Your task to perform on an android device: Find coffee shops on Maps Image 0: 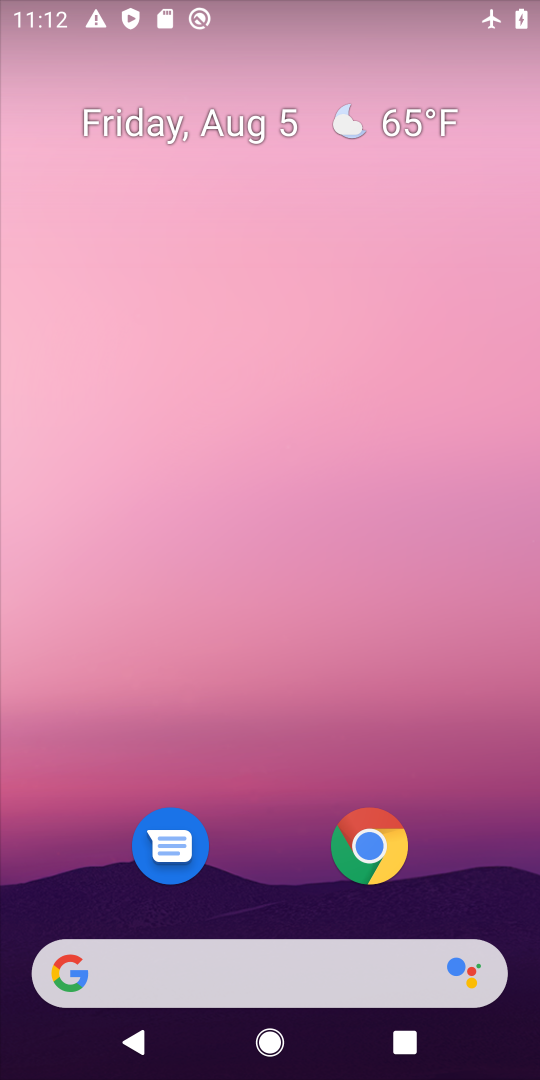
Step 0: drag from (269, 762) to (263, 0)
Your task to perform on an android device: Find coffee shops on Maps Image 1: 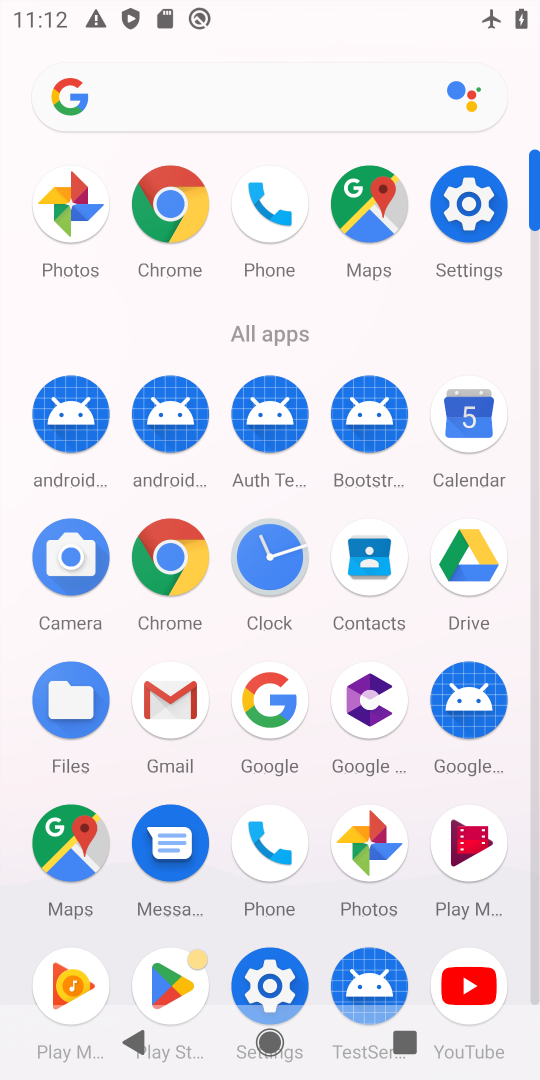
Step 1: click (369, 208)
Your task to perform on an android device: Find coffee shops on Maps Image 2: 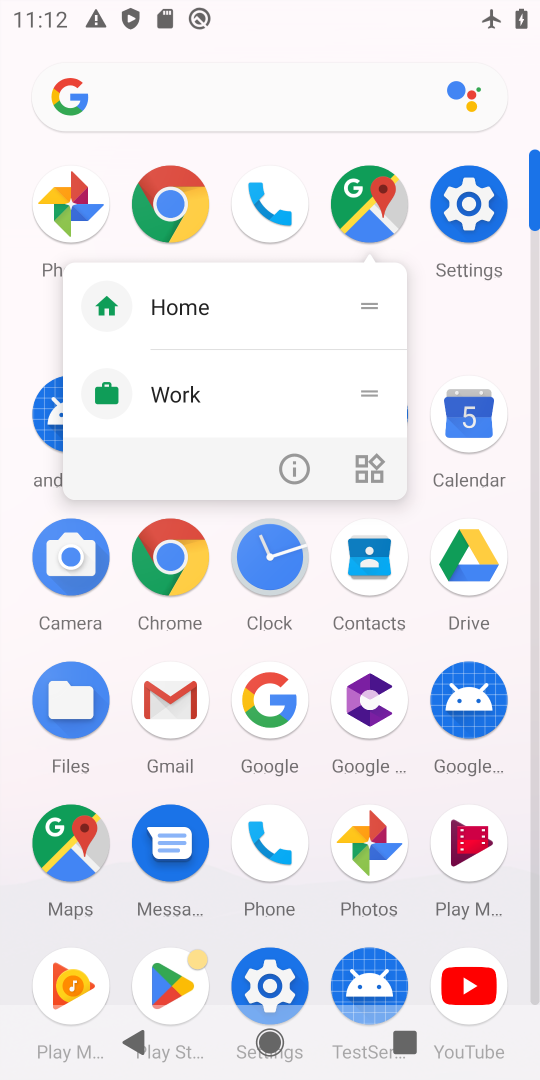
Step 2: click (369, 210)
Your task to perform on an android device: Find coffee shops on Maps Image 3: 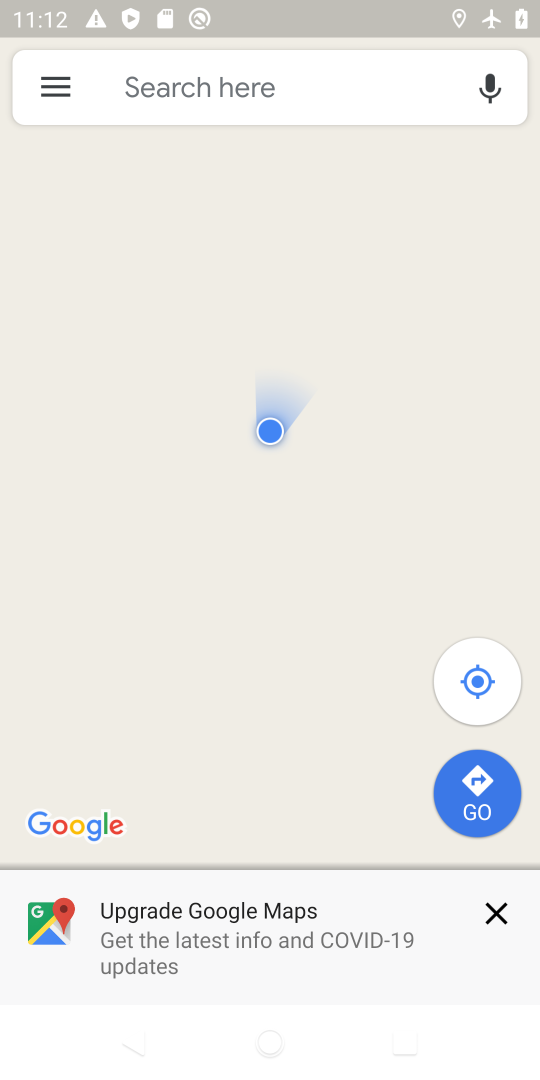
Step 3: click (339, 95)
Your task to perform on an android device: Find coffee shops on Maps Image 4: 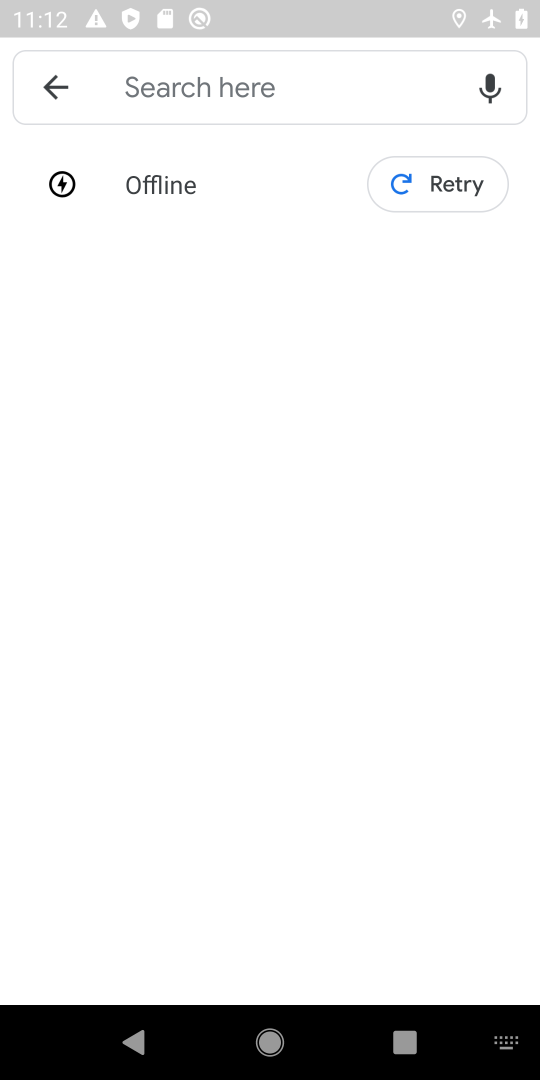
Step 4: type "coffee"
Your task to perform on an android device: Find coffee shops on Maps Image 5: 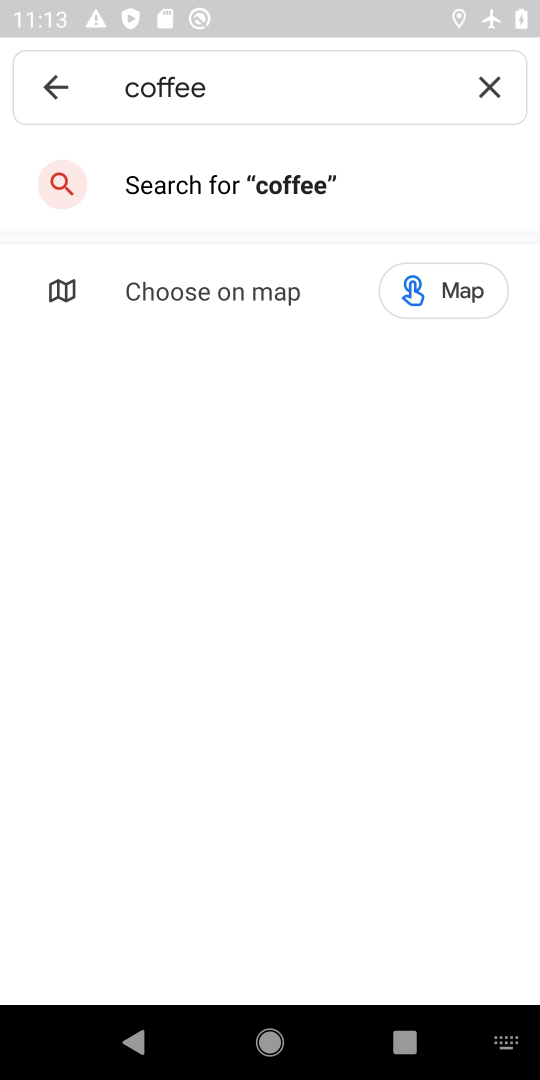
Step 5: click (296, 195)
Your task to perform on an android device: Find coffee shops on Maps Image 6: 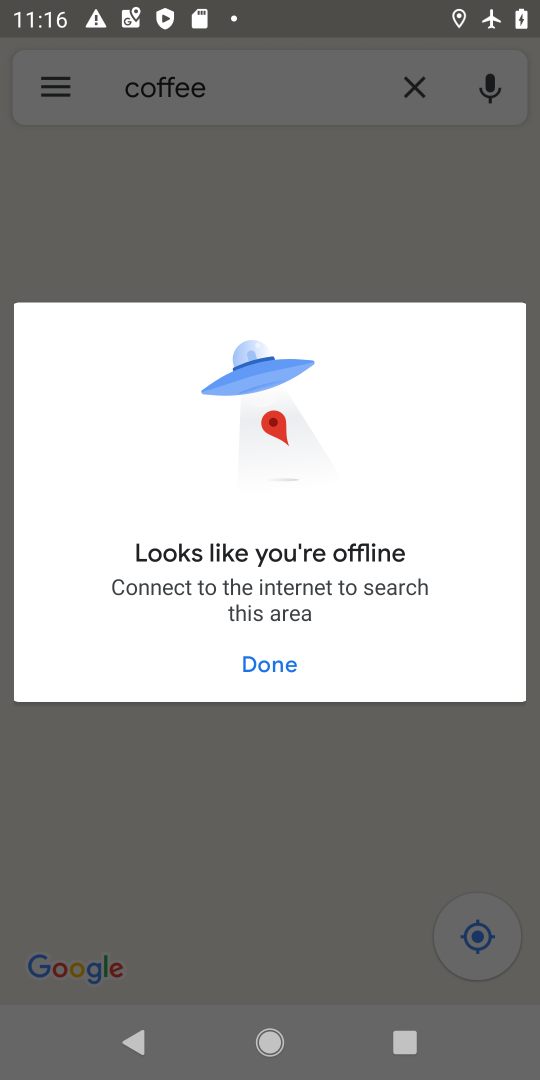
Step 6: task complete